Your task to perform on an android device: create a new album in the google photos Image 0: 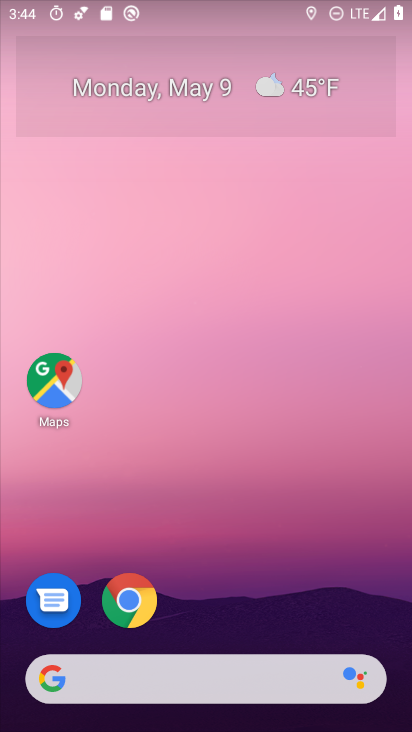
Step 0: drag from (239, 560) to (320, 0)
Your task to perform on an android device: create a new album in the google photos Image 1: 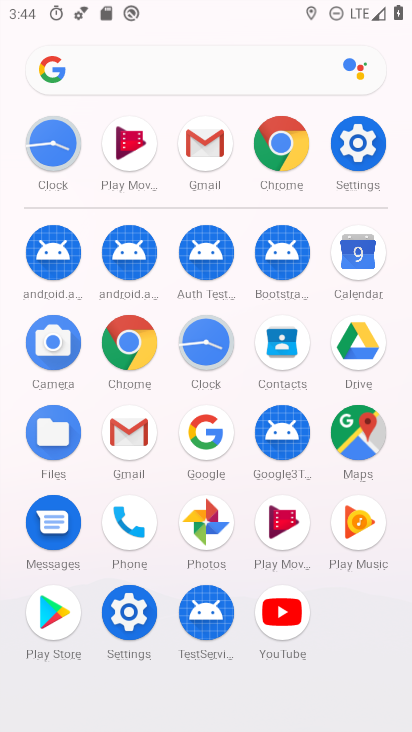
Step 1: click (208, 540)
Your task to perform on an android device: create a new album in the google photos Image 2: 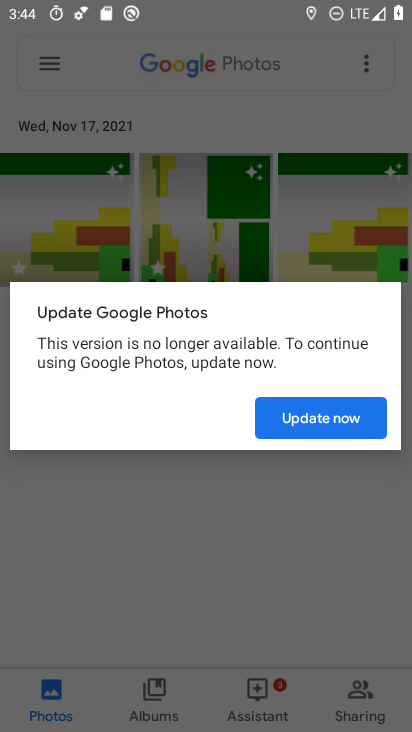
Step 2: click (333, 428)
Your task to perform on an android device: create a new album in the google photos Image 3: 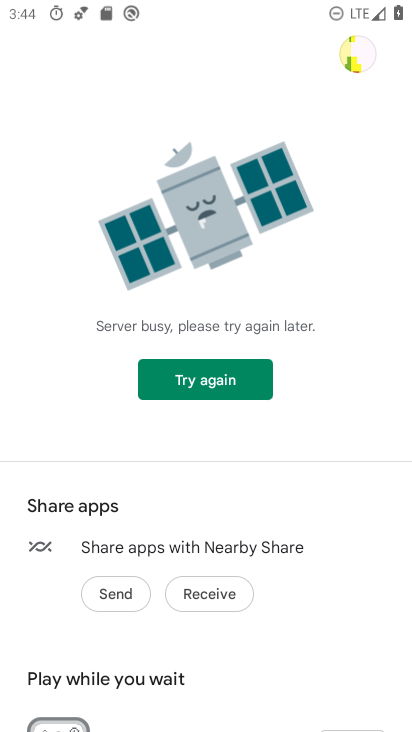
Step 3: press back button
Your task to perform on an android device: create a new album in the google photos Image 4: 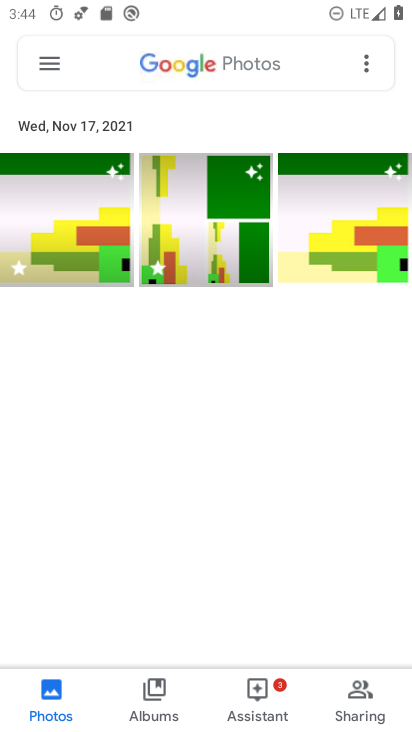
Step 4: click (155, 698)
Your task to perform on an android device: create a new album in the google photos Image 5: 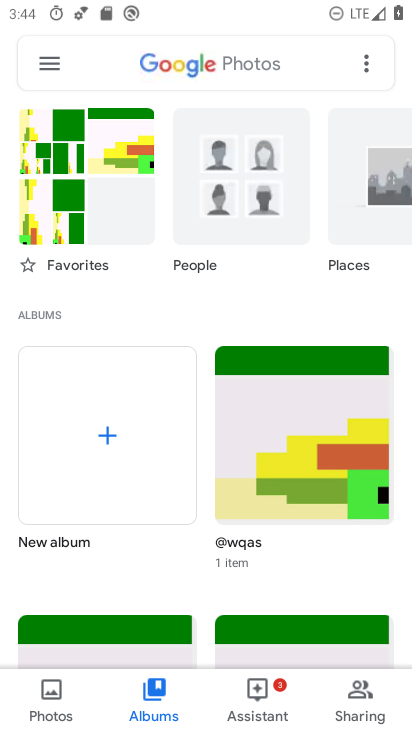
Step 5: click (107, 445)
Your task to perform on an android device: create a new album in the google photos Image 6: 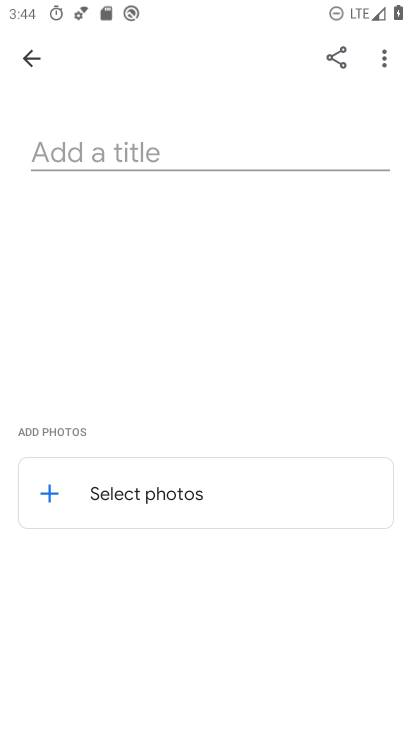
Step 6: click (166, 146)
Your task to perform on an android device: create a new album in the google photos Image 7: 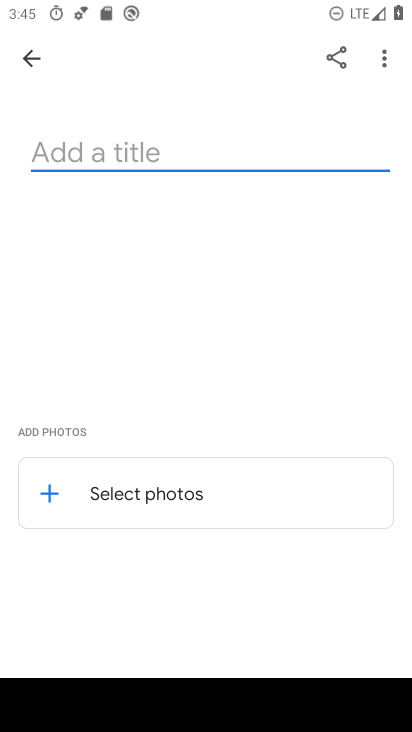
Step 7: type "#@!flick"
Your task to perform on an android device: create a new album in the google photos Image 8: 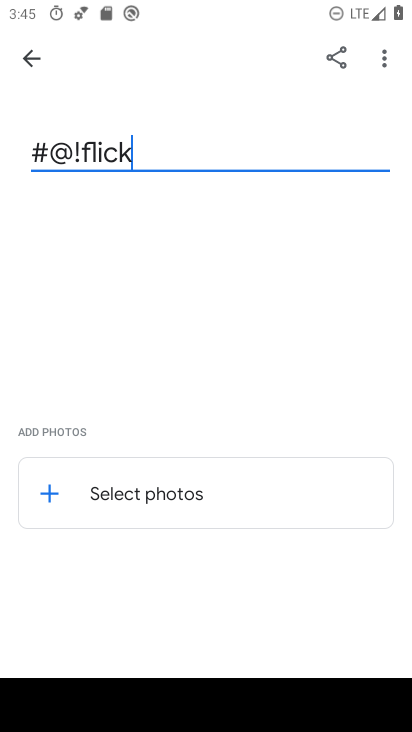
Step 8: click (44, 487)
Your task to perform on an android device: create a new album in the google photos Image 9: 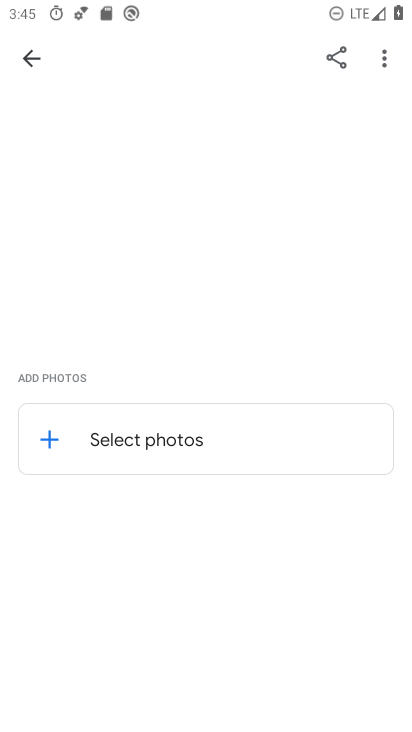
Step 9: click (46, 436)
Your task to perform on an android device: create a new album in the google photos Image 10: 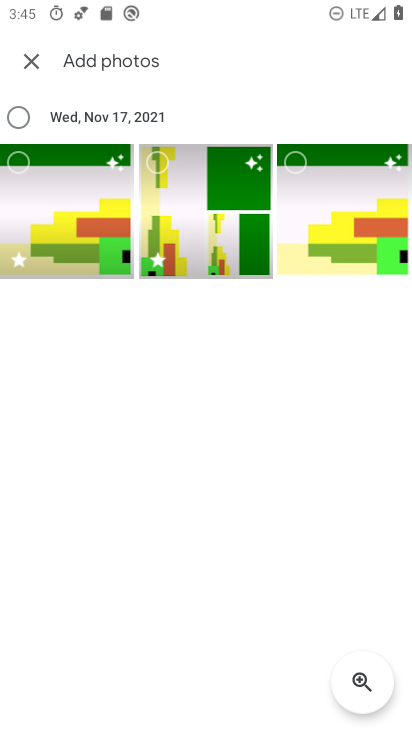
Step 10: click (35, 251)
Your task to perform on an android device: create a new album in the google photos Image 11: 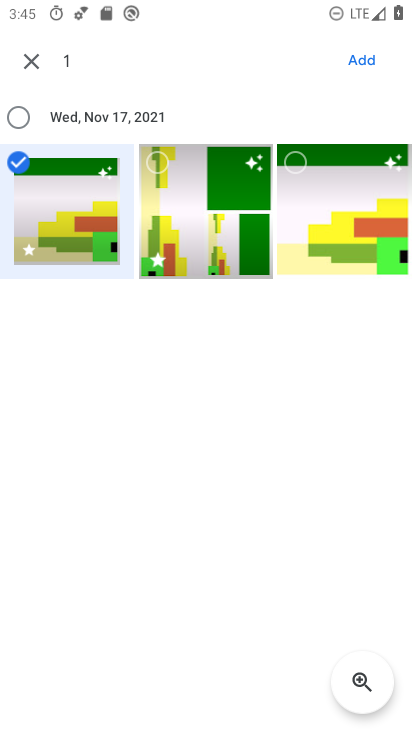
Step 11: click (229, 201)
Your task to perform on an android device: create a new album in the google photos Image 12: 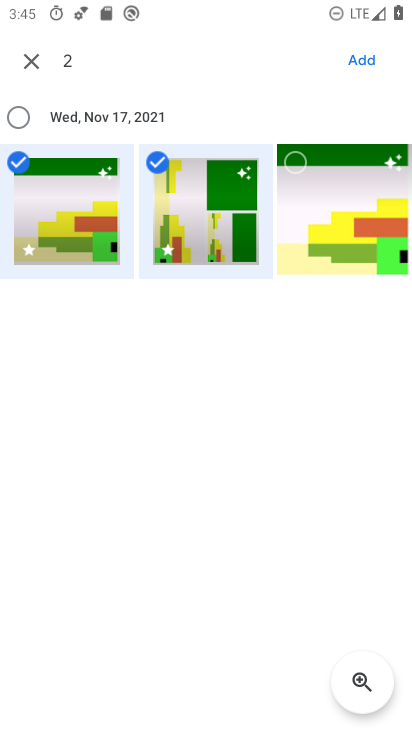
Step 12: click (359, 235)
Your task to perform on an android device: create a new album in the google photos Image 13: 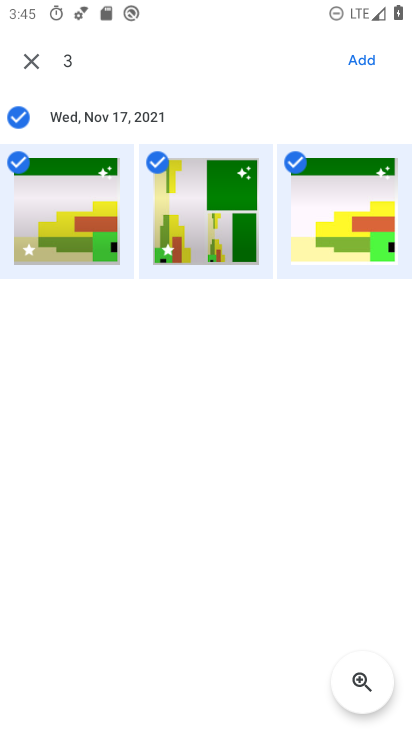
Step 13: click (380, 49)
Your task to perform on an android device: create a new album in the google photos Image 14: 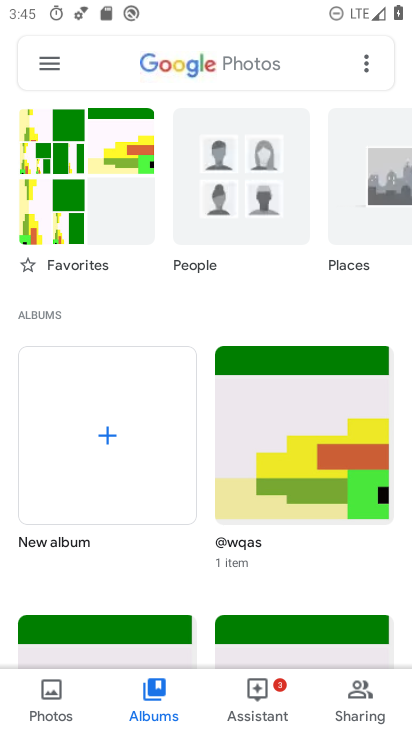
Step 14: click (108, 428)
Your task to perform on an android device: create a new album in the google photos Image 15: 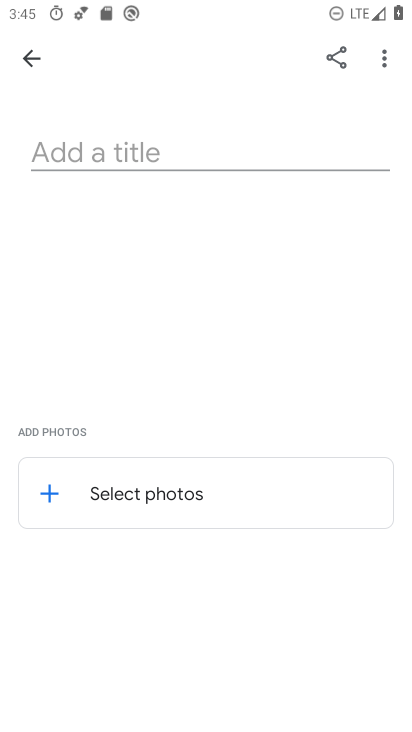
Step 15: click (255, 116)
Your task to perform on an android device: create a new album in the google photos Image 16: 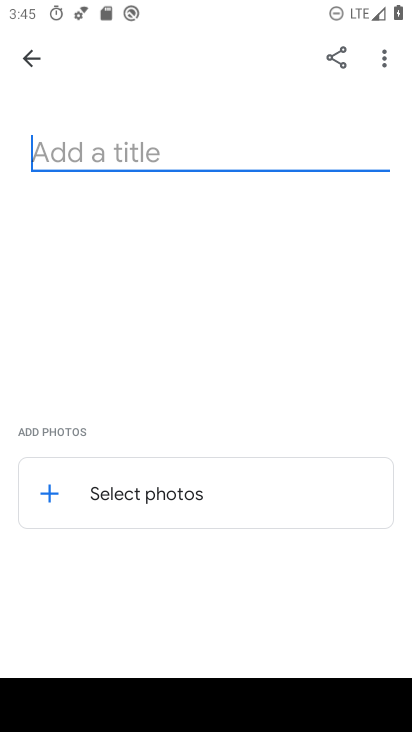
Step 16: click (207, 144)
Your task to perform on an android device: create a new album in the google photos Image 17: 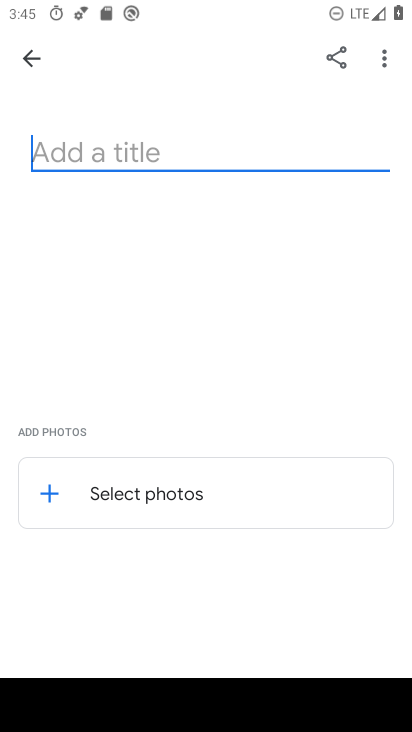
Step 17: type "flick"
Your task to perform on an android device: create a new album in the google photos Image 18: 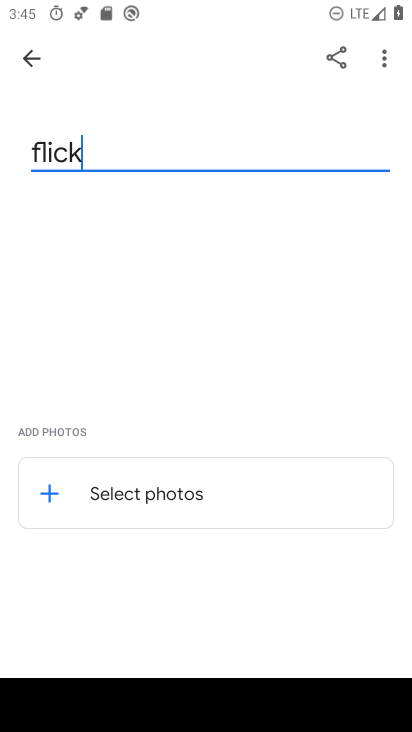
Step 18: click (48, 485)
Your task to perform on an android device: create a new album in the google photos Image 19: 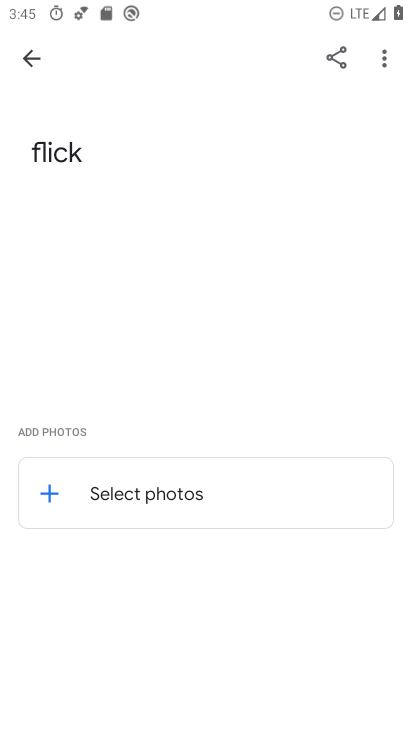
Step 19: click (41, 491)
Your task to perform on an android device: create a new album in the google photos Image 20: 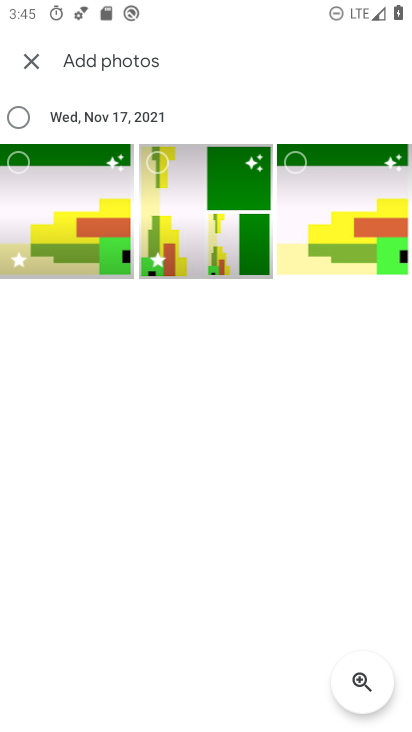
Step 20: click (40, 244)
Your task to perform on an android device: create a new album in the google photos Image 21: 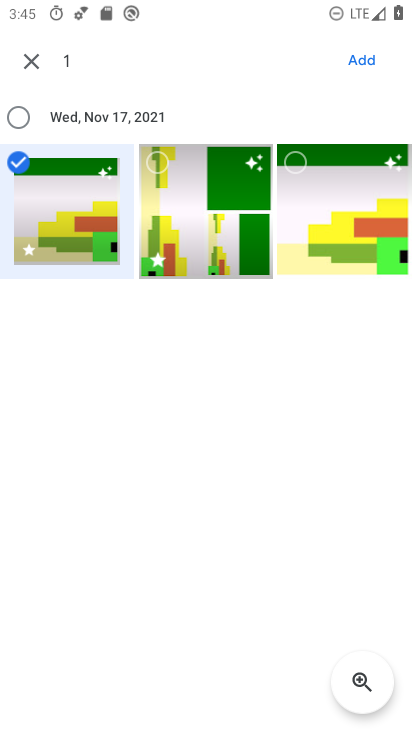
Step 21: click (203, 218)
Your task to perform on an android device: create a new album in the google photos Image 22: 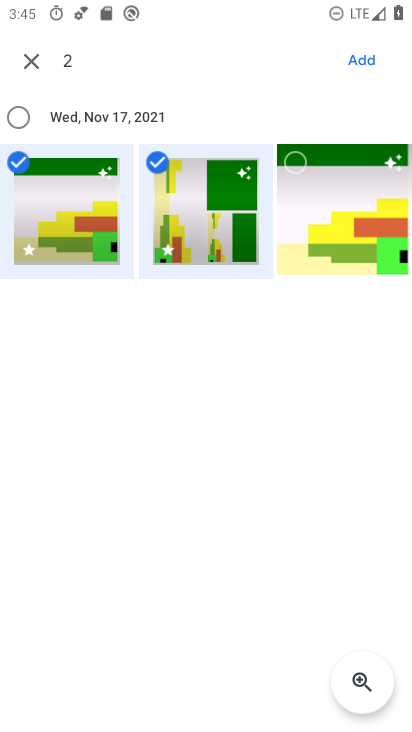
Step 22: click (305, 171)
Your task to perform on an android device: create a new album in the google photos Image 23: 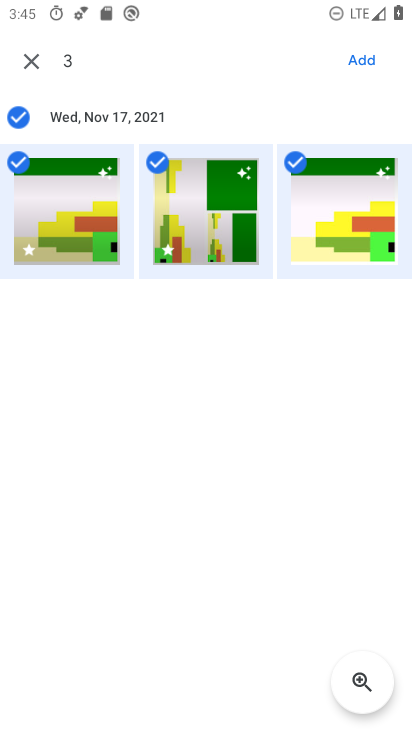
Step 23: click (378, 57)
Your task to perform on an android device: create a new album in the google photos Image 24: 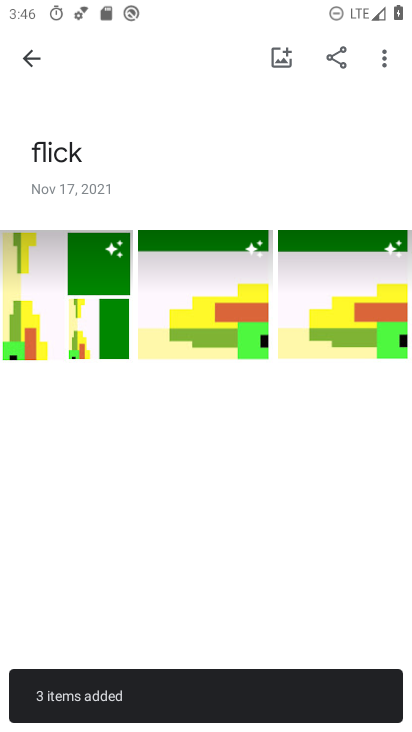
Step 24: task complete